Your task to perform on an android device: search for starred emails in the gmail app Image 0: 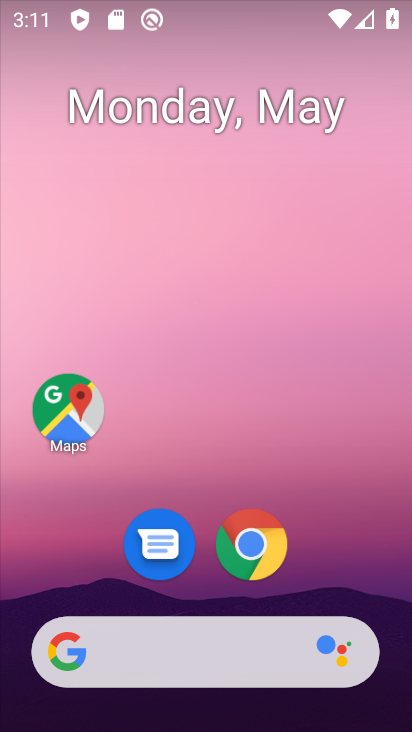
Step 0: drag from (313, 590) to (287, 97)
Your task to perform on an android device: search for starred emails in the gmail app Image 1: 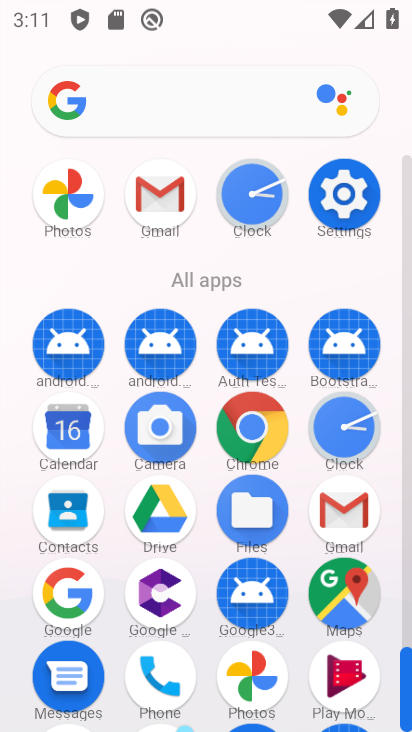
Step 1: click (354, 517)
Your task to perform on an android device: search for starred emails in the gmail app Image 2: 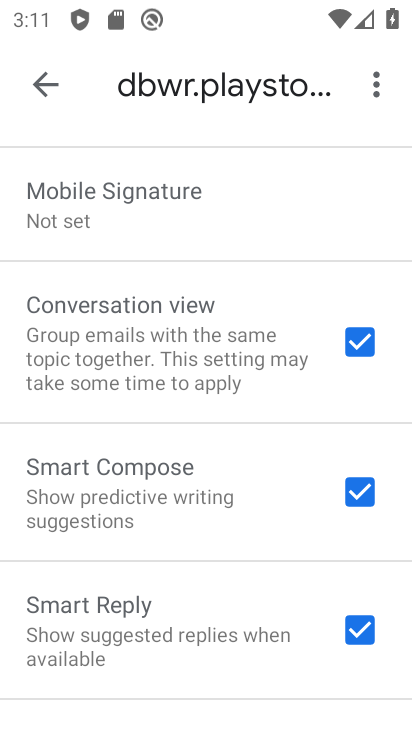
Step 2: press back button
Your task to perform on an android device: search for starred emails in the gmail app Image 3: 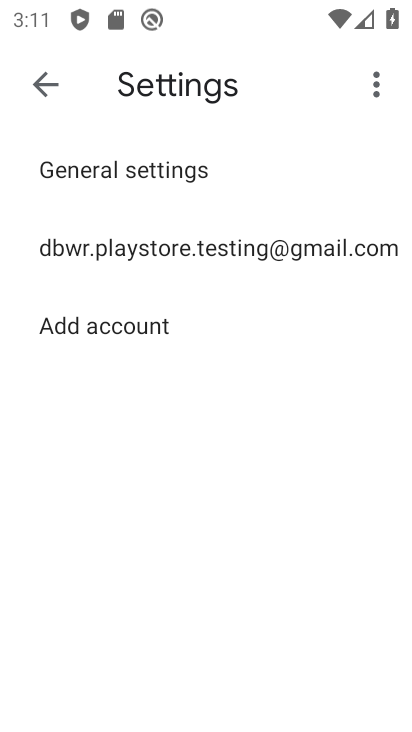
Step 3: press back button
Your task to perform on an android device: search for starred emails in the gmail app Image 4: 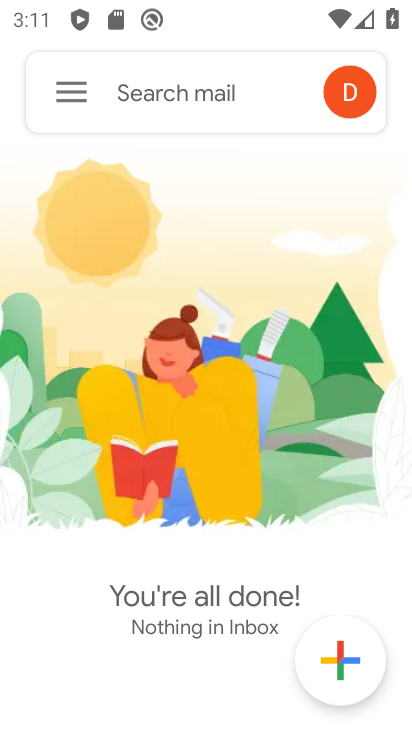
Step 4: click (62, 95)
Your task to perform on an android device: search for starred emails in the gmail app Image 5: 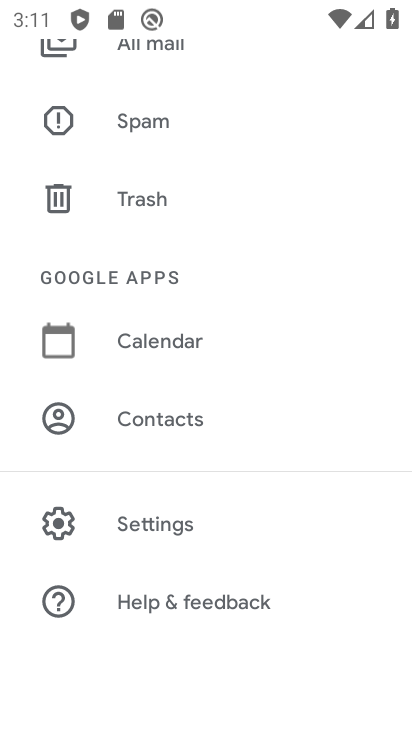
Step 5: drag from (315, 148) to (387, 673)
Your task to perform on an android device: search for starred emails in the gmail app Image 6: 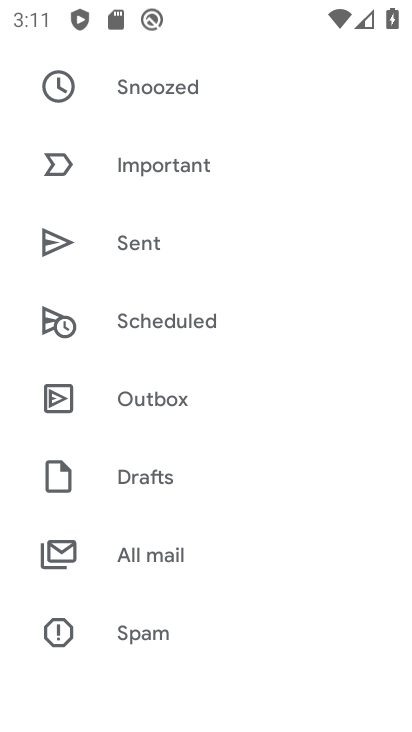
Step 6: drag from (254, 230) to (383, 716)
Your task to perform on an android device: search for starred emails in the gmail app Image 7: 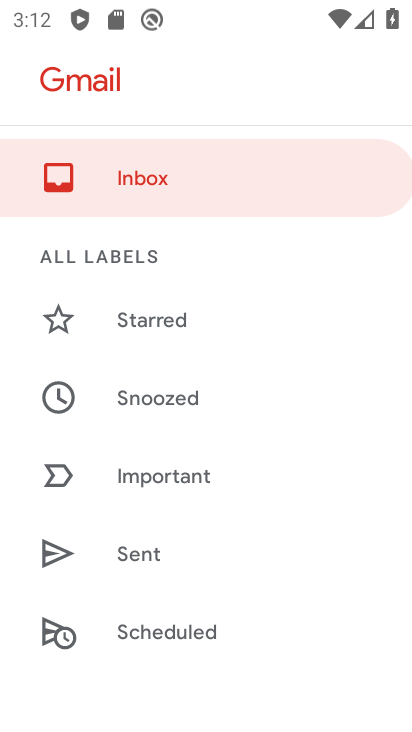
Step 7: click (195, 339)
Your task to perform on an android device: search for starred emails in the gmail app Image 8: 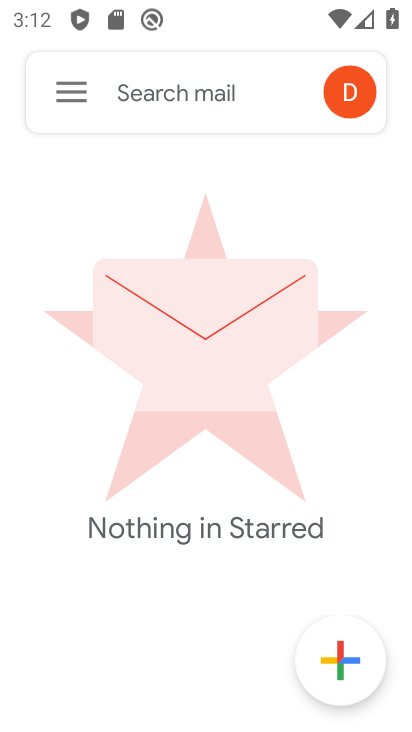
Step 8: task complete